Your task to perform on an android device: turn on sleep mode Image 0: 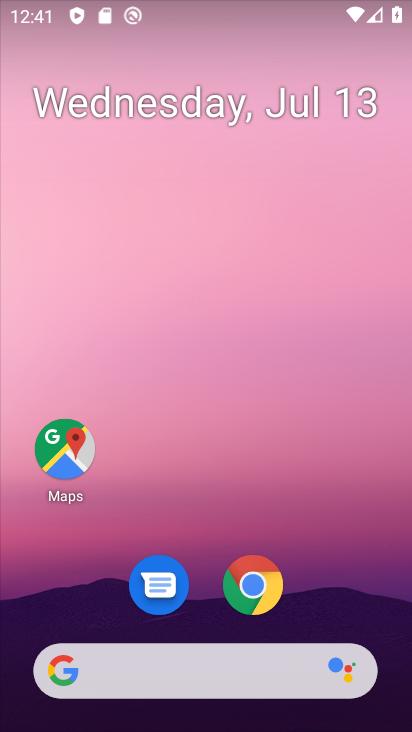
Step 0: drag from (358, 582) to (310, 65)
Your task to perform on an android device: turn on sleep mode Image 1: 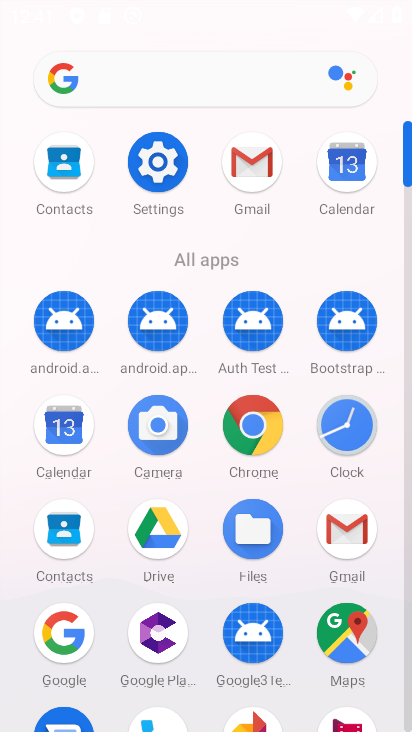
Step 1: click (167, 159)
Your task to perform on an android device: turn on sleep mode Image 2: 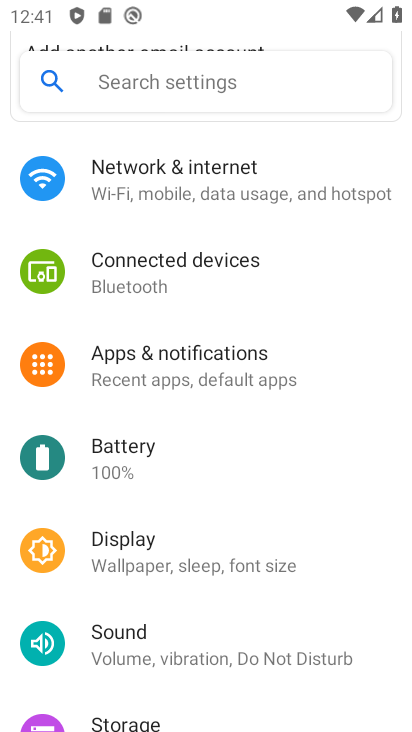
Step 2: click (214, 539)
Your task to perform on an android device: turn on sleep mode Image 3: 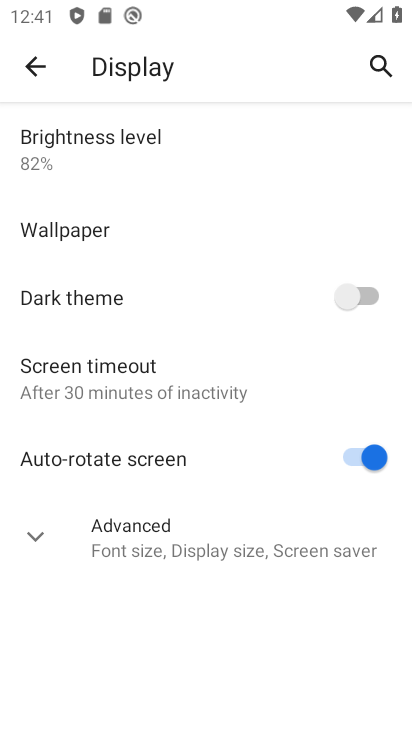
Step 3: click (31, 539)
Your task to perform on an android device: turn on sleep mode Image 4: 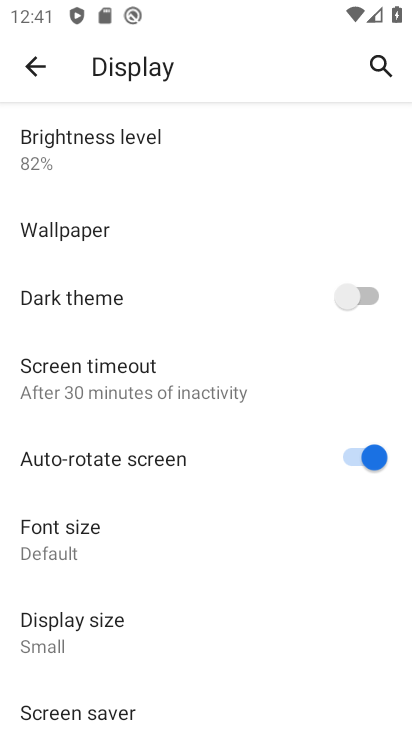
Step 4: task complete